Your task to perform on an android device: visit the assistant section in the google photos Image 0: 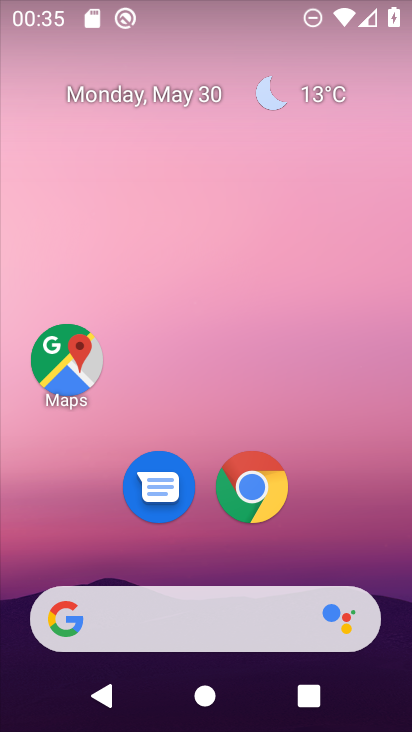
Step 0: drag from (393, 701) to (393, 175)
Your task to perform on an android device: visit the assistant section in the google photos Image 1: 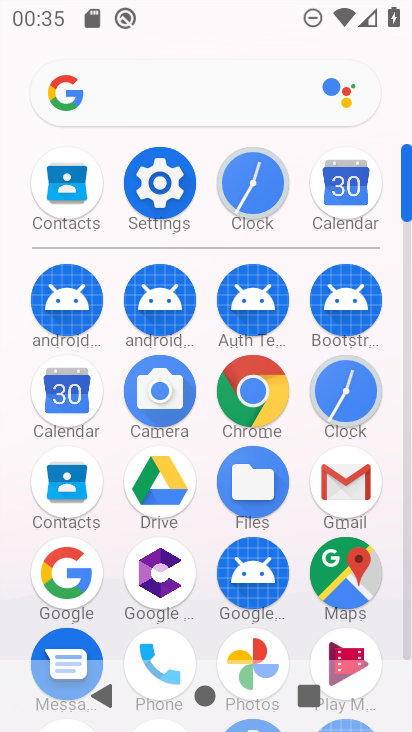
Step 1: click (233, 644)
Your task to perform on an android device: visit the assistant section in the google photos Image 2: 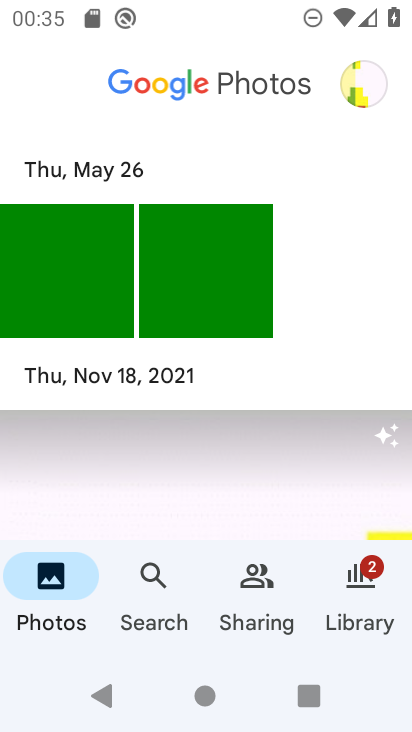
Step 2: task complete